Your task to perform on an android device: Play the last video I watched on Youtube Image 0: 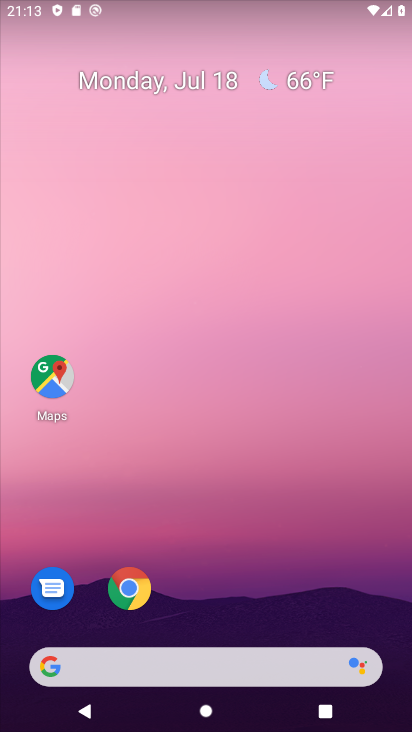
Step 0: drag from (342, 633) to (269, 0)
Your task to perform on an android device: Play the last video I watched on Youtube Image 1: 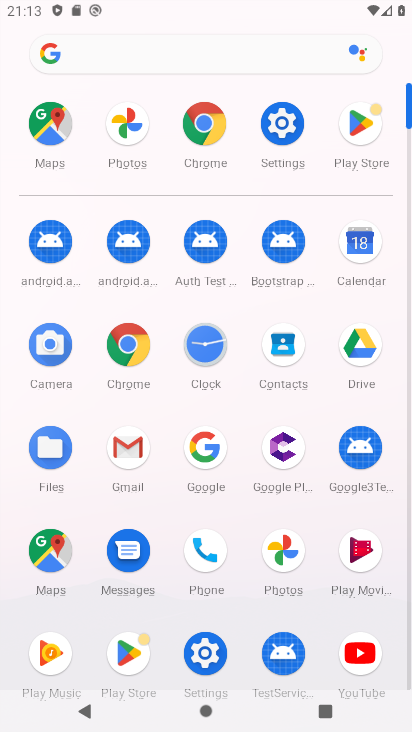
Step 1: click (367, 644)
Your task to perform on an android device: Play the last video I watched on Youtube Image 2: 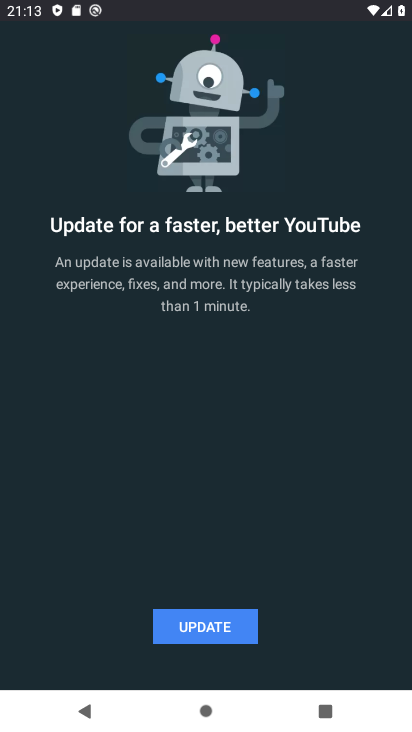
Step 2: click (159, 614)
Your task to perform on an android device: Play the last video I watched on Youtube Image 3: 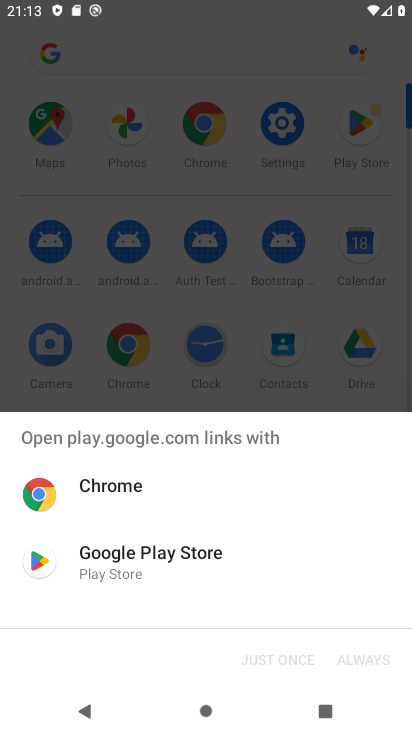
Step 3: click (180, 577)
Your task to perform on an android device: Play the last video I watched on Youtube Image 4: 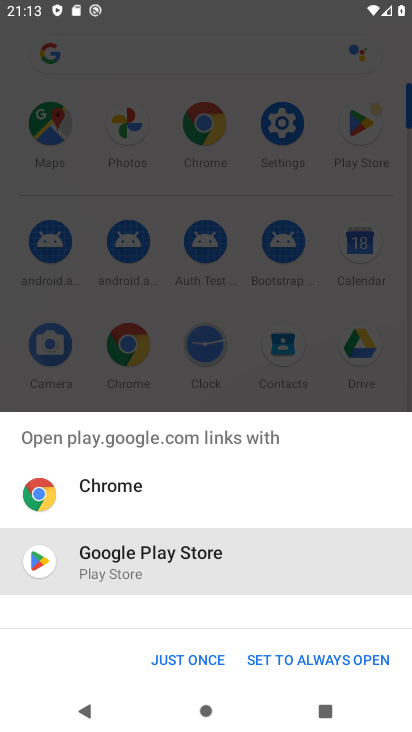
Step 4: click (207, 666)
Your task to perform on an android device: Play the last video I watched on Youtube Image 5: 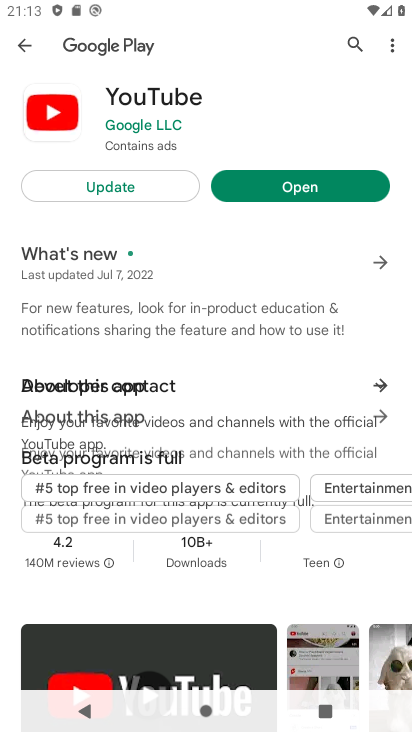
Step 5: click (121, 201)
Your task to perform on an android device: Play the last video I watched on Youtube Image 6: 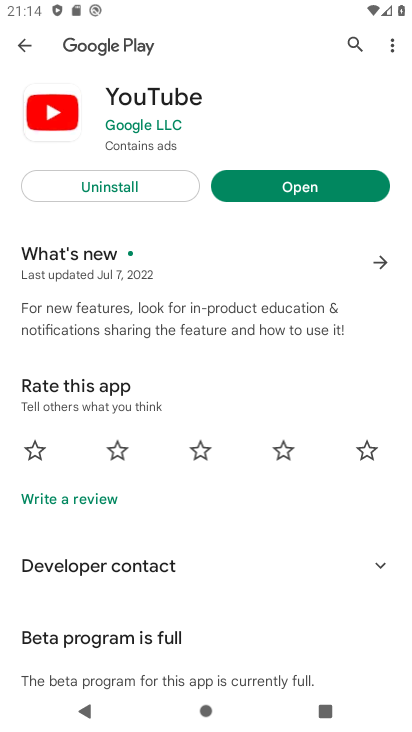
Step 6: click (289, 184)
Your task to perform on an android device: Play the last video I watched on Youtube Image 7: 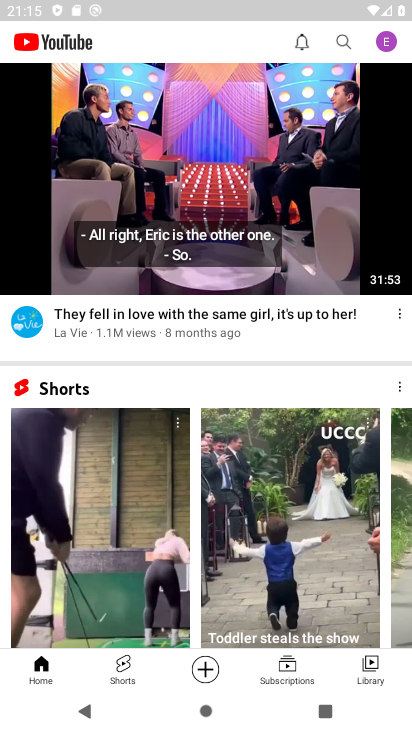
Step 7: click (375, 670)
Your task to perform on an android device: Play the last video I watched on Youtube Image 8: 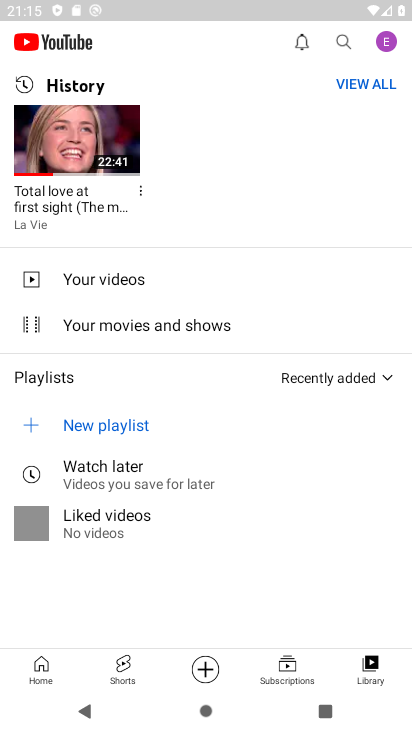
Step 8: click (29, 143)
Your task to perform on an android device: Play the last video I watched on Youtube Image 9: 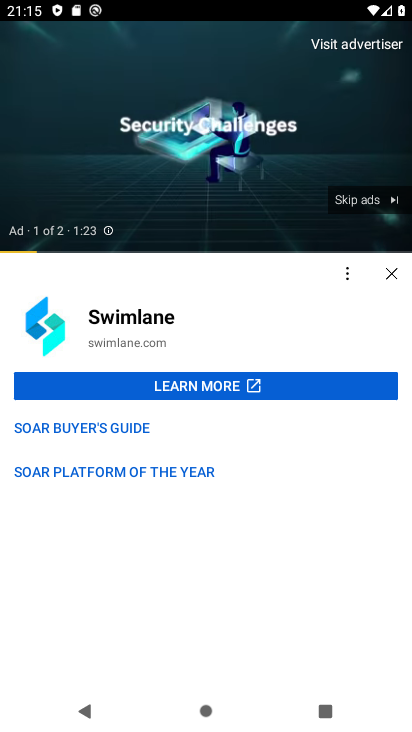
Step 9: click (377, 198)
Your task to perform on an android device: Play the last video I watched on Youtube Image 10: 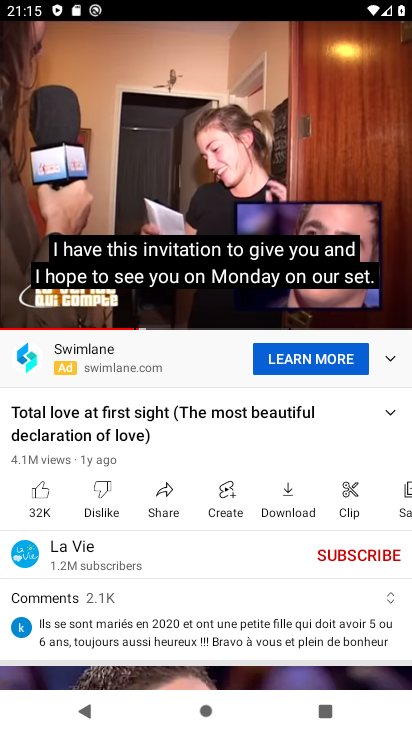
Step 10: task complete